Your task to perform on an android device: turn off translation in the chrome app Image 0: 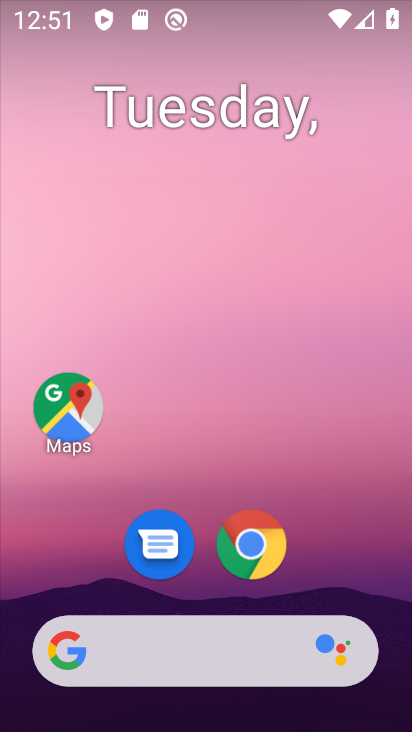
Step 0: click (250, 541)
Your task to perform on an android device: turn off translation in the chrome app Image 1: 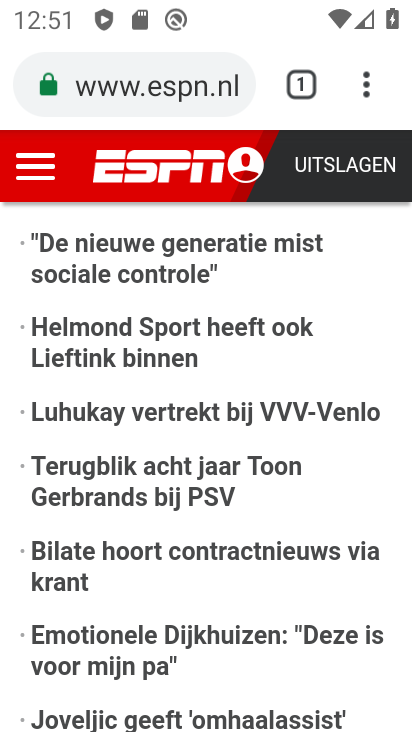
Step 1: click (366, 93)
Your task to perform on an android device: turn off translation in the chrome app Image 2: 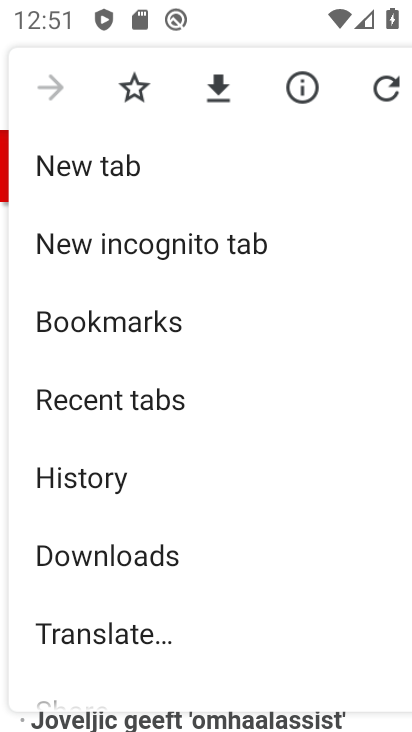
Step 2: drag from (250, 598) to (260, 293)
Your task to perform on an android device: turn off translation in the chrome app Image 3: 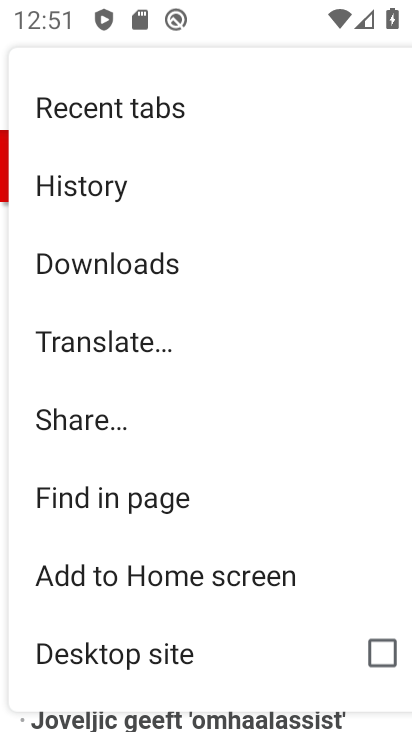
Step 3: drag from (309, 632) to (287, 300)
Your task to perform on an android device: turn off translation in the chrome app Image 4: 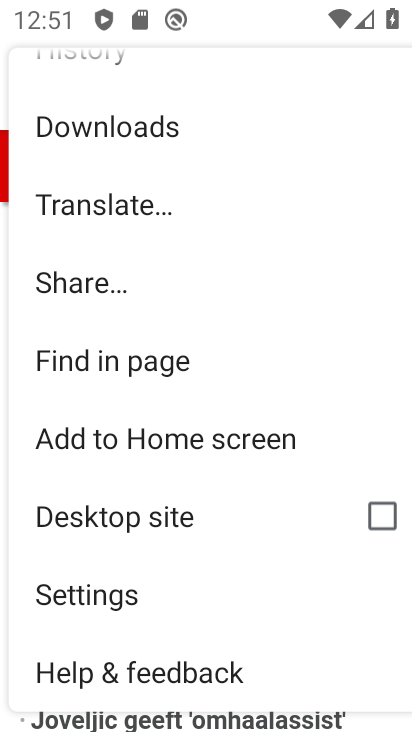
Step 4: click (70, 598)
Your task to perform on an android device: turn off translation in the chrome app Image 5: 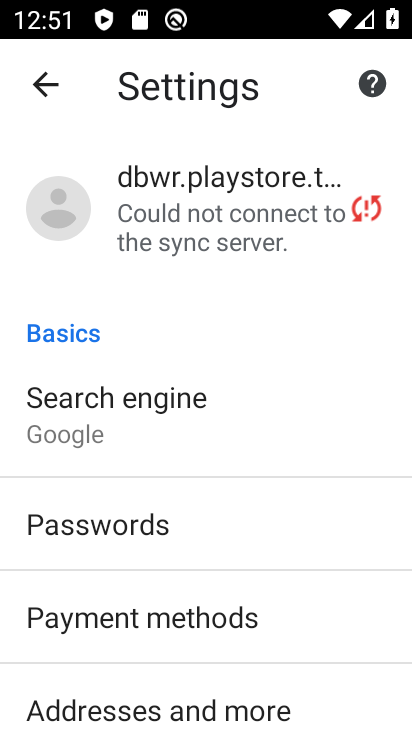
Step 5: drag from (349, 674) to (307, 341)
Your task to perform on an android device: turn off translation in the chrome app Image 6: 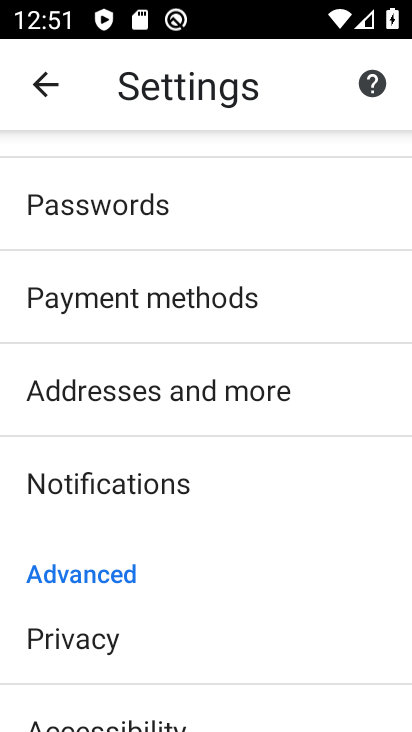
Step 6: drag from (301, 640) to (340, 305)
Your task to perform on an android device: turn off translation in the chrome app Image 7: 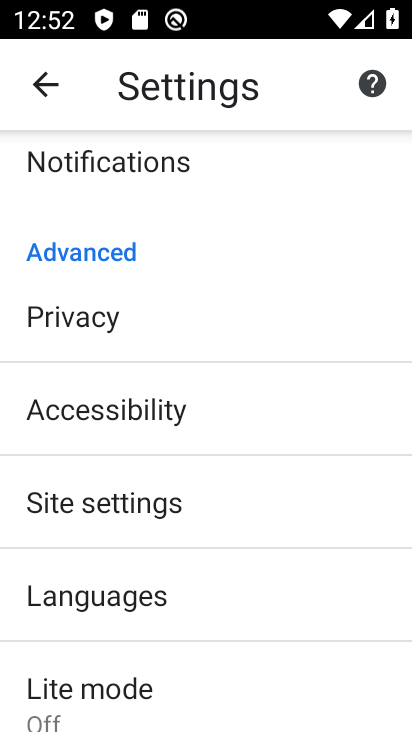
Step 7: click (101, 591)
Your task to perform on an android device: turn off translation in the chrome app Image 8: 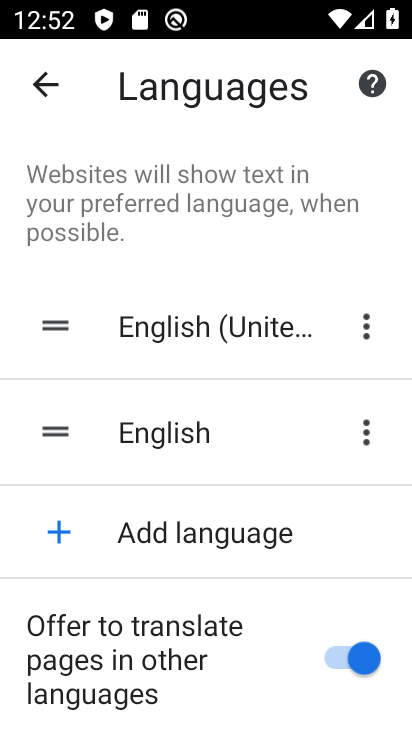
Step 8: click (332, 656)
Your task to perform on an android device: turn off translation in the chrome app Image 9: 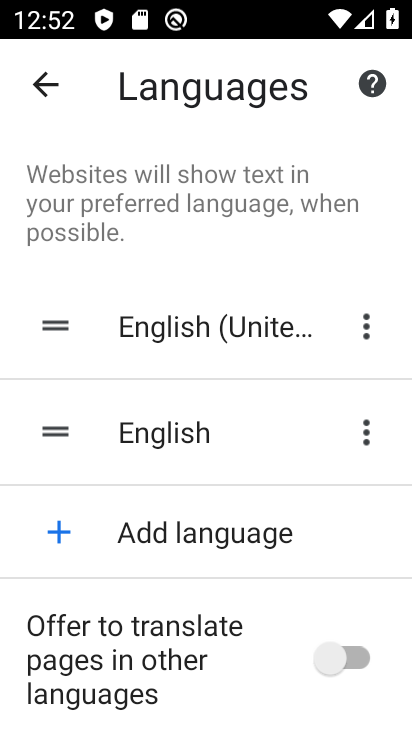
Step 9: task complete